Your task to perform on an android device: Open Android settings Image 0: 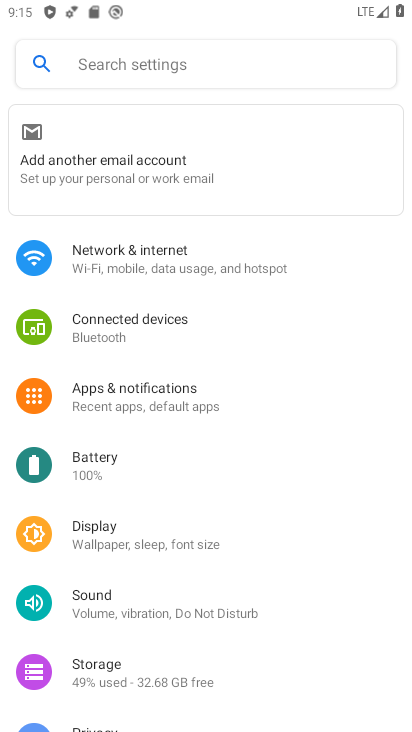
Step 0: drag from (309, 523) to (355, 69)
Your task to perform on an android device: Open Android settings Image 1: 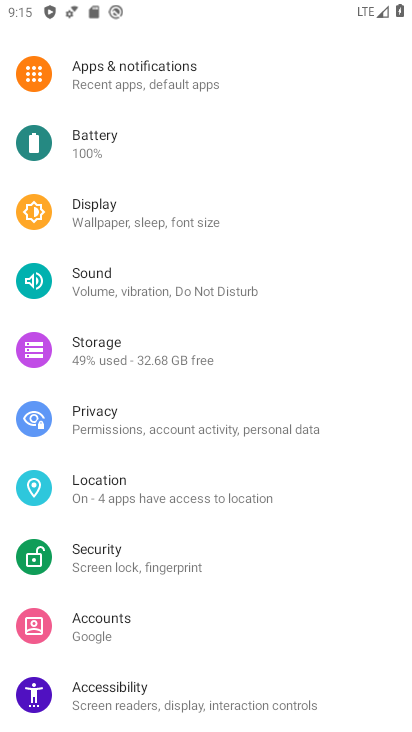
Step 1: task complete